Your task to perform on an android device: Search for seafood restaurants on Google Maps Image 0: 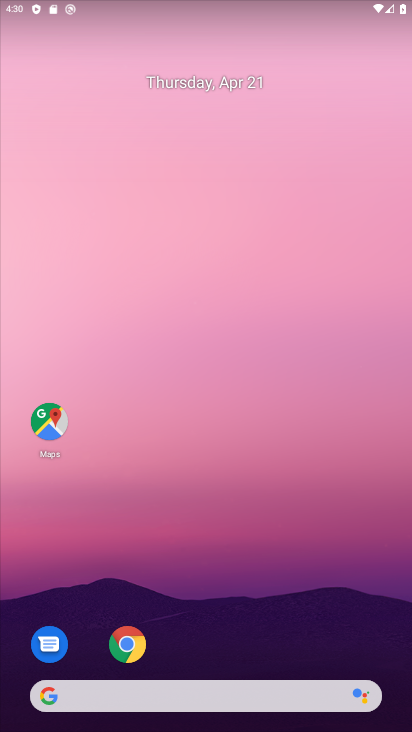
Step 0: drag from (208, 679) to (201, 435)
Your task to perform on an android device: Search for seafood restaurants on Google Maps Image 1: 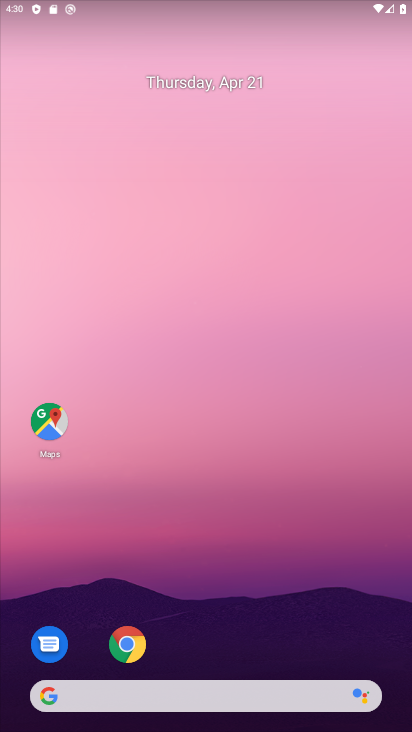
Step 1: drag from (211, 673) to (193, 290)
Your task to perform on an android device: Search for seafood restaurants on Google Maps Image 2: 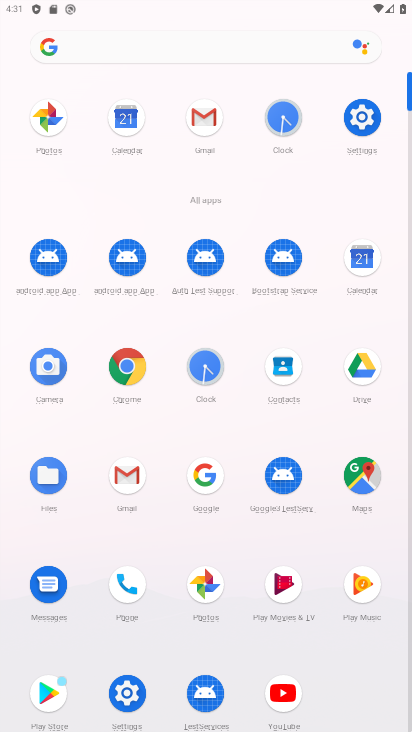
Step 2: click (358, 470)
Your task to perform on an android device: Search for seafood restaurants on Google Maps Image 3: 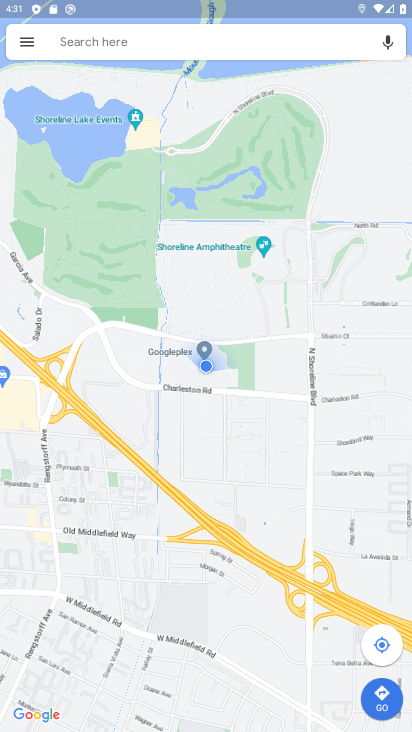
Step 3: click (27, 37)
Your task to perform on an android device: Search for seafood restaurants on Google Maps Image 4: 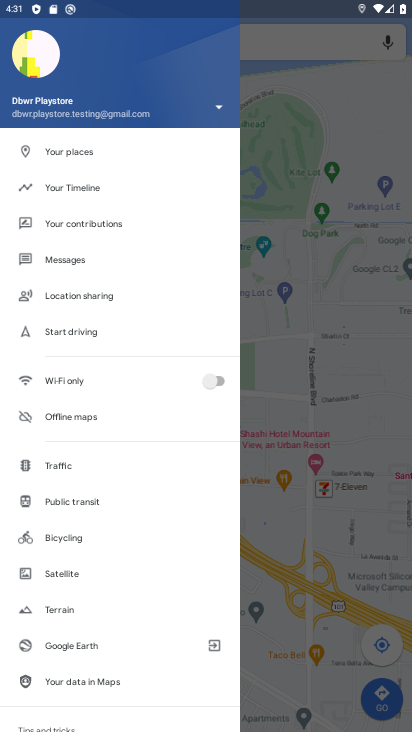
Step 4: click (319, 41)
Your task to perform on an android device: Search for seafood restaurants on Google Maps Image 5: 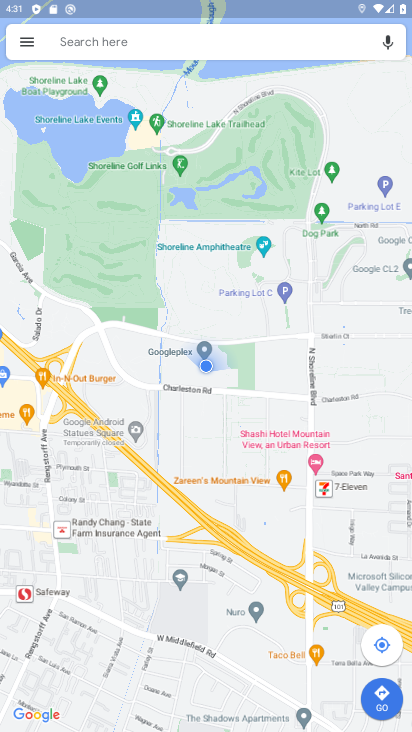
Step 5: click (163, 42)
Your task to perform on an android device: Search for seafood restaurants on Google Maps Image 6: 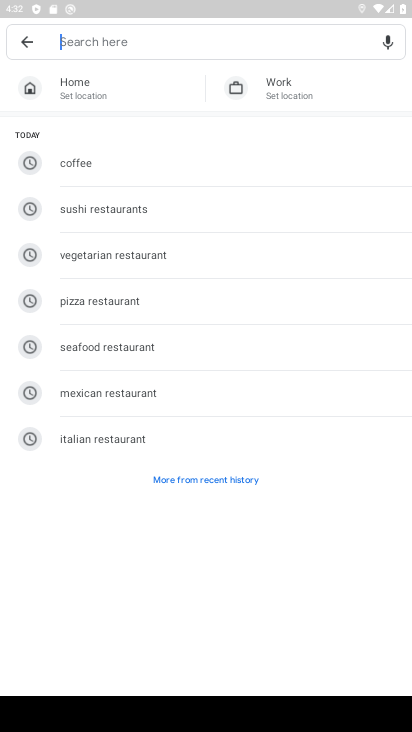
Step 6: click (102, 336)
Your task to perform on an android device: Search for seafood restaurants on Google Maps Image 7: 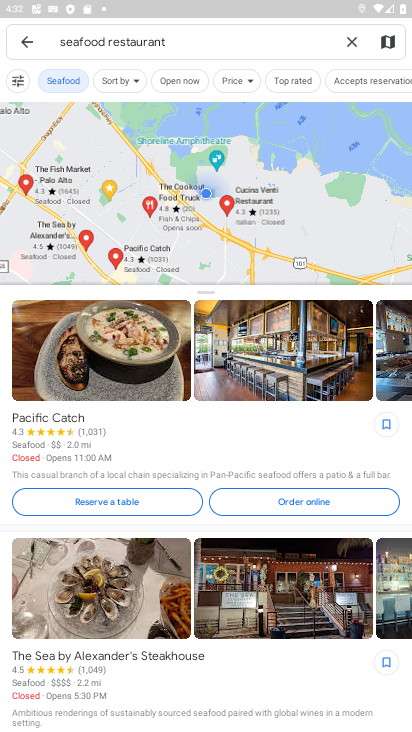
Step 7: task complete